Your task to perform on an android device: Empty the shopping cart on target. Add usb-c to the cart on target Image 0: 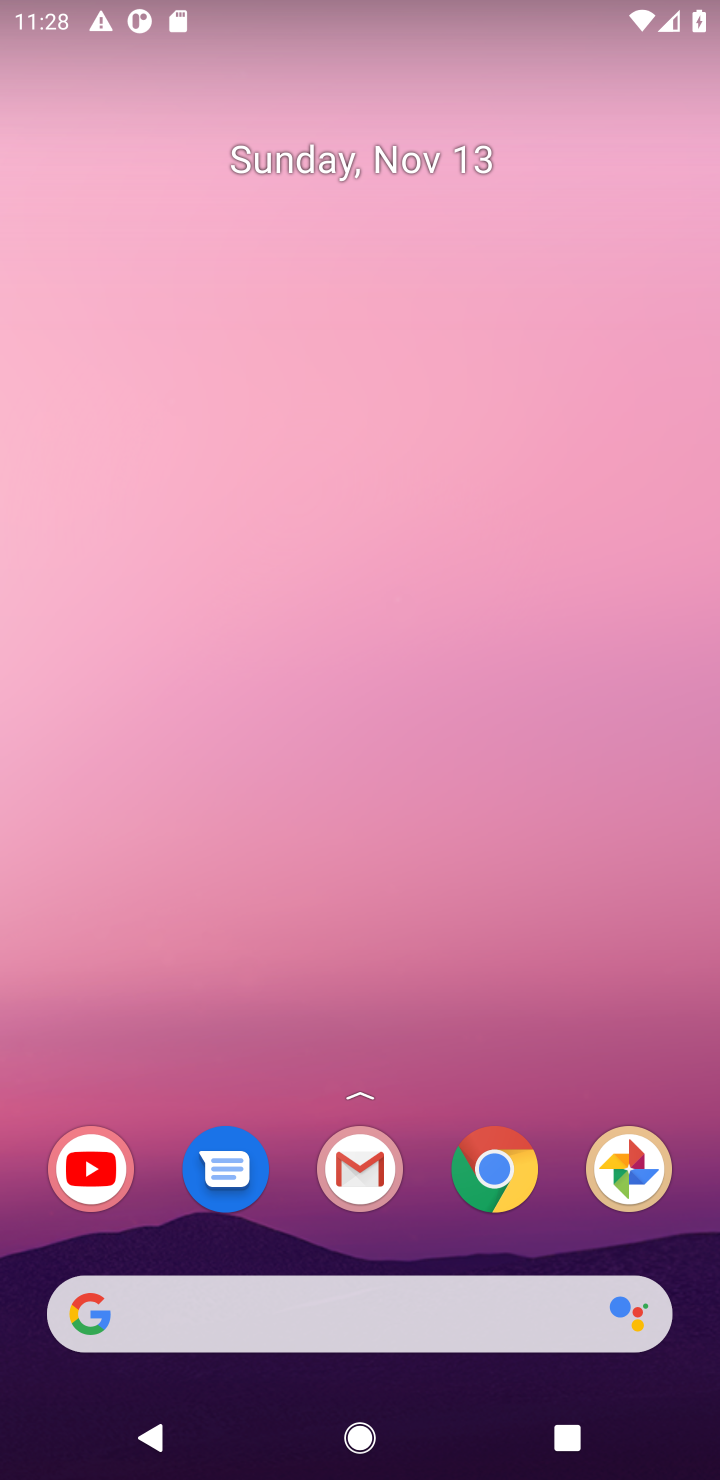
Step 0: drag from (410, 1251) to (361, 142)
Your task to perform on an android device: Empty the shopping cart on target. Add usb-c to the cart on target Image 1: 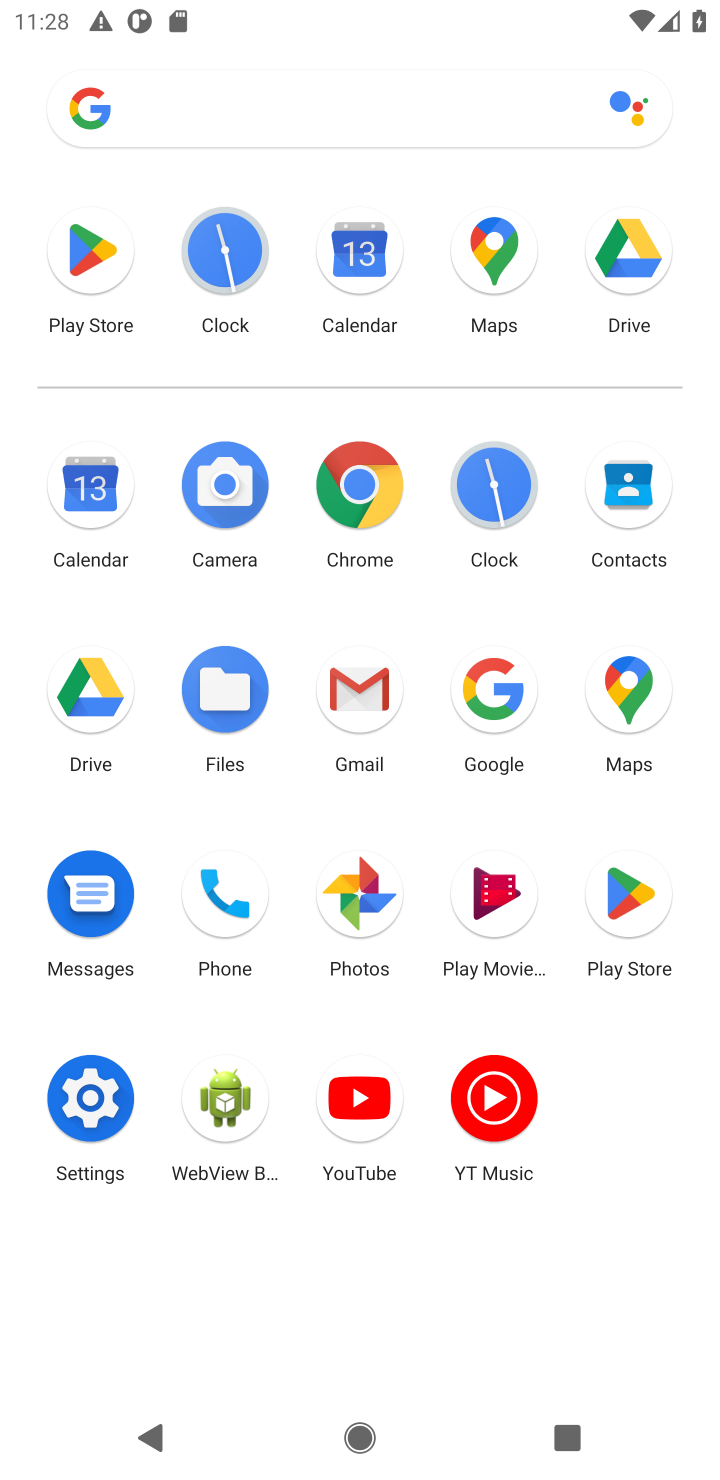
Step 1: click (338, 479)
Your task to perform on an android device: Empty the shopping cart on target. Add usb-c to the cart on target Image 2: 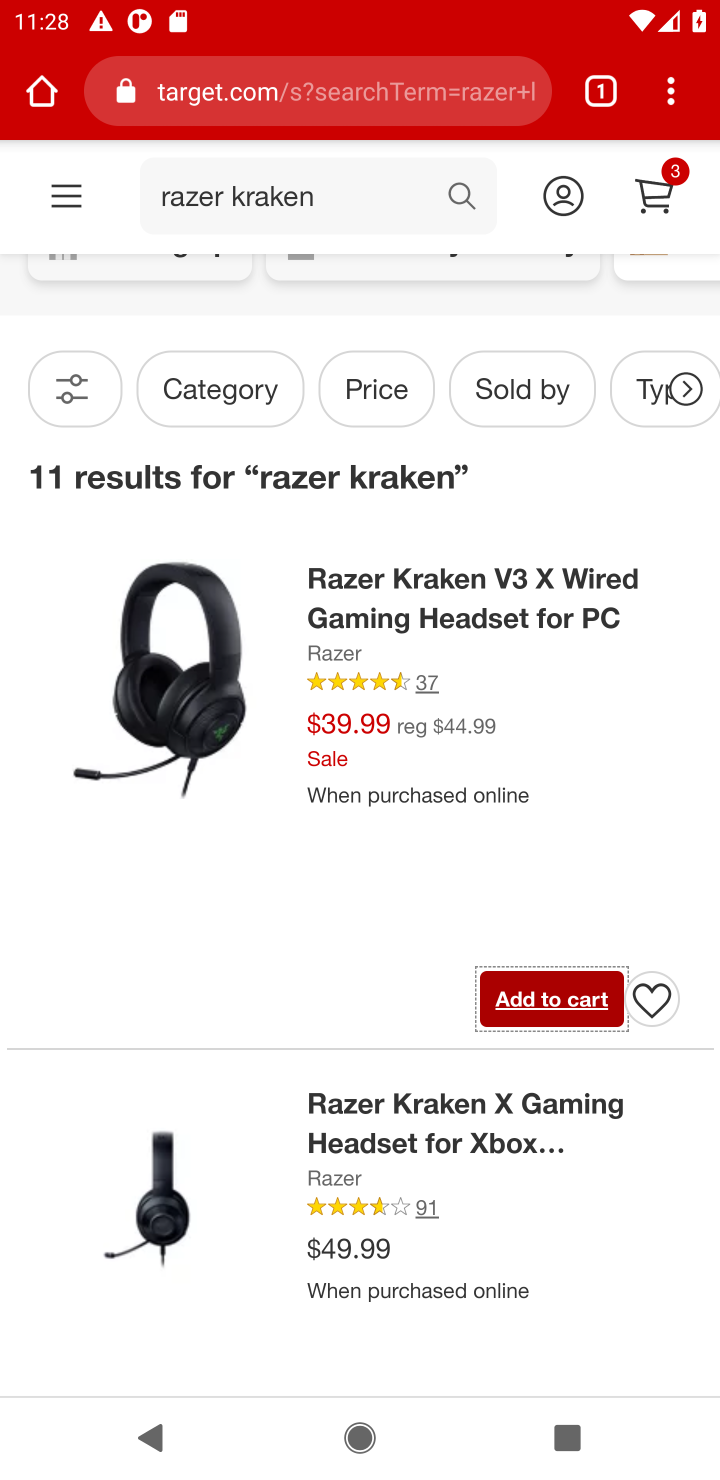
Step 2: click (346, 107)
Your task to perform on an android device: Empty the shopping cart on target. Add usb-c to the cart on target Image 3: 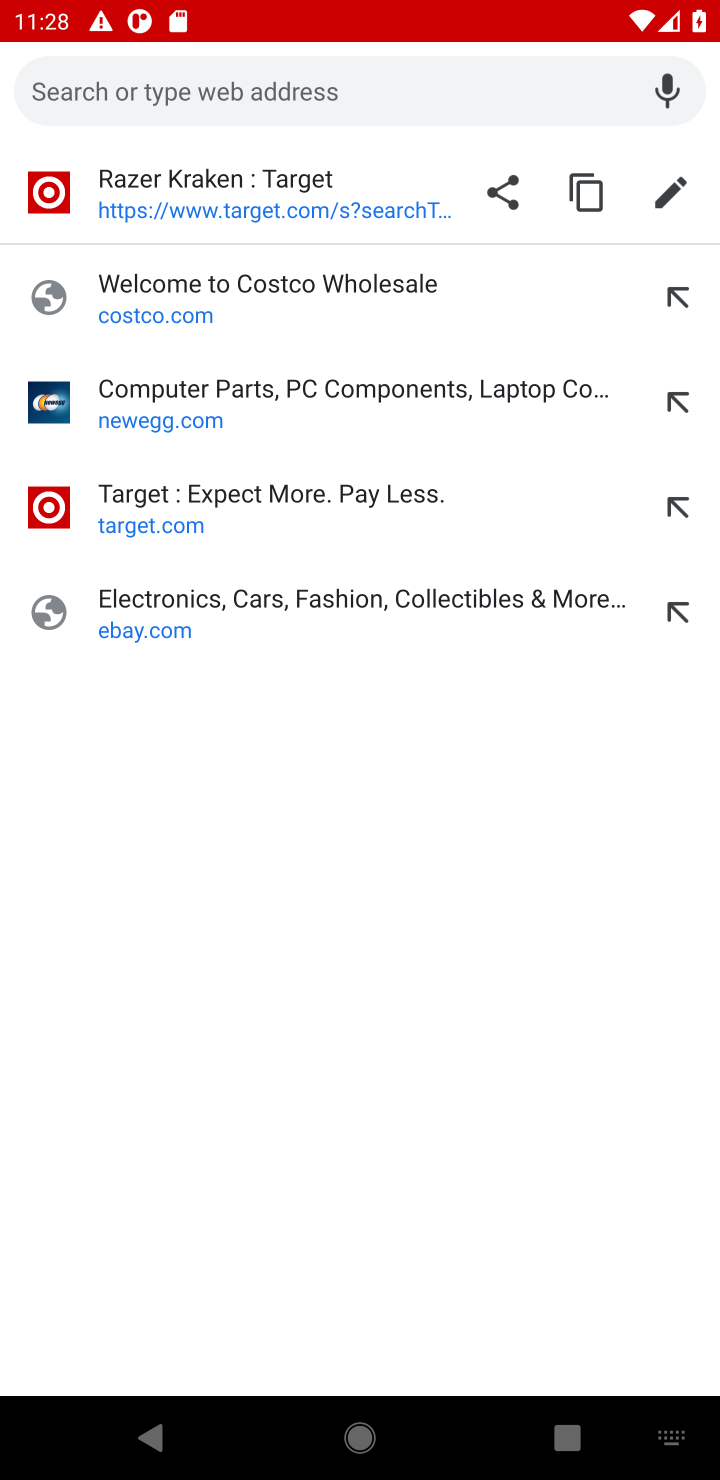
Step 3: type "target.com"
Your task to perform on an android device: Empty the shopping cart on target. Add usb-c to the cart on target Image 4: 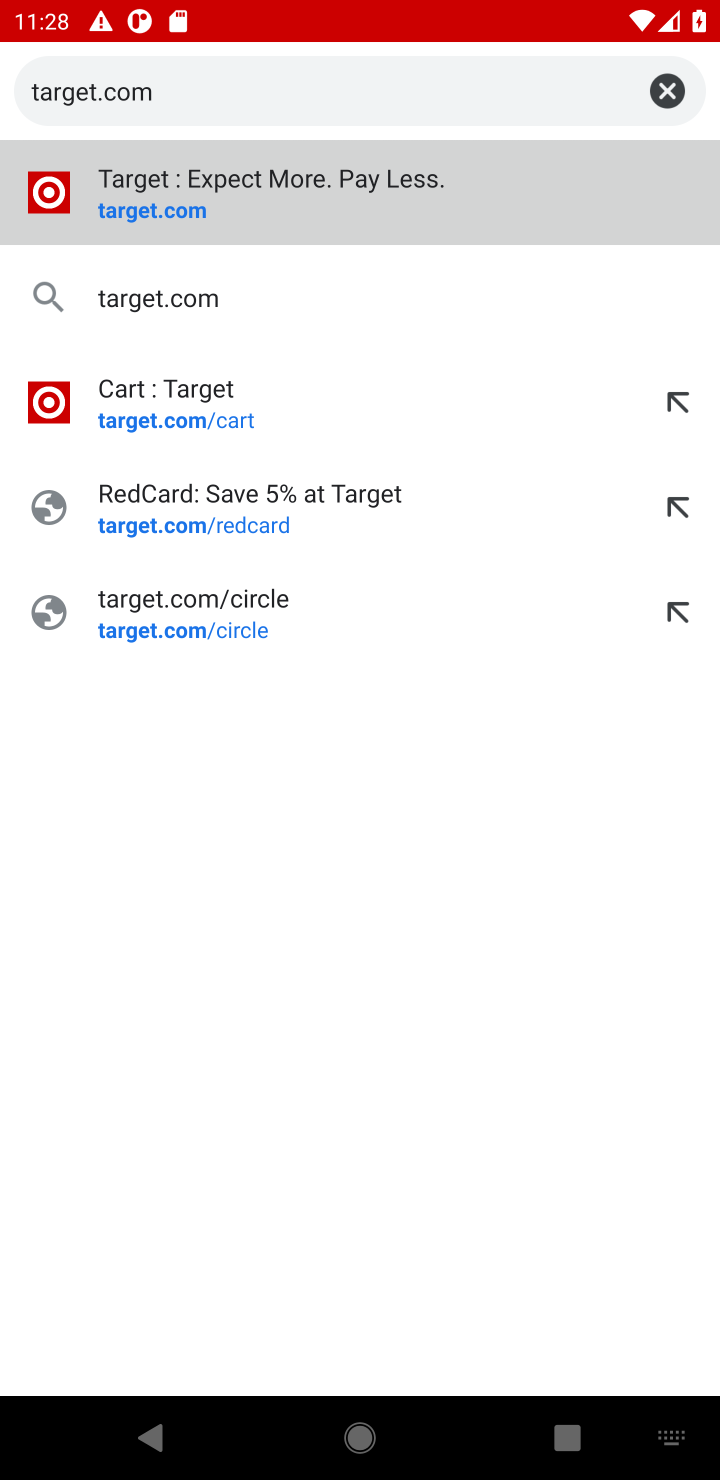
Step 4: press enter
Your task to perform on an android device: Empty the shopping cart on target. Add usb-c to the cart on target Image 5: 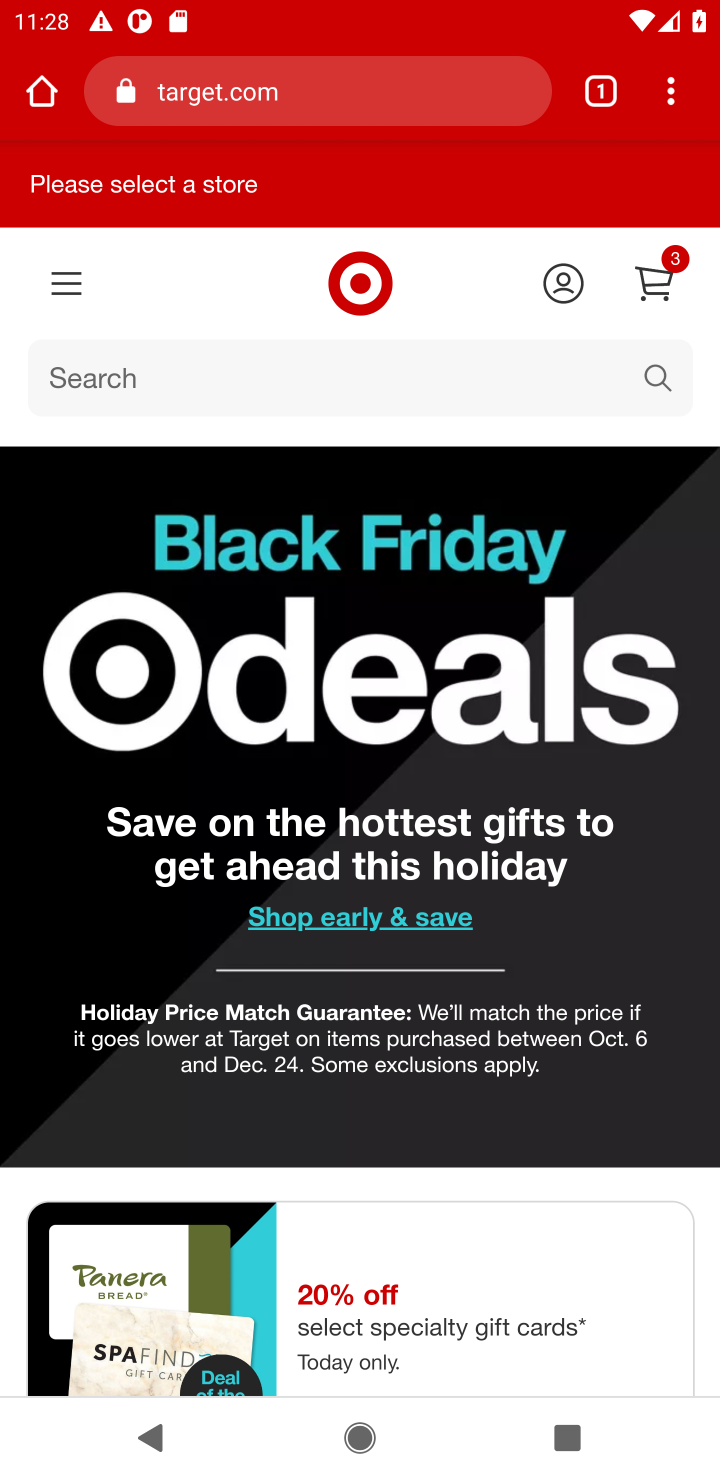
Step 5: click (668, 281)
Your task to perform on an android device: Empty the shopping cart on target. Add usb-c to the cart on target Image 6: 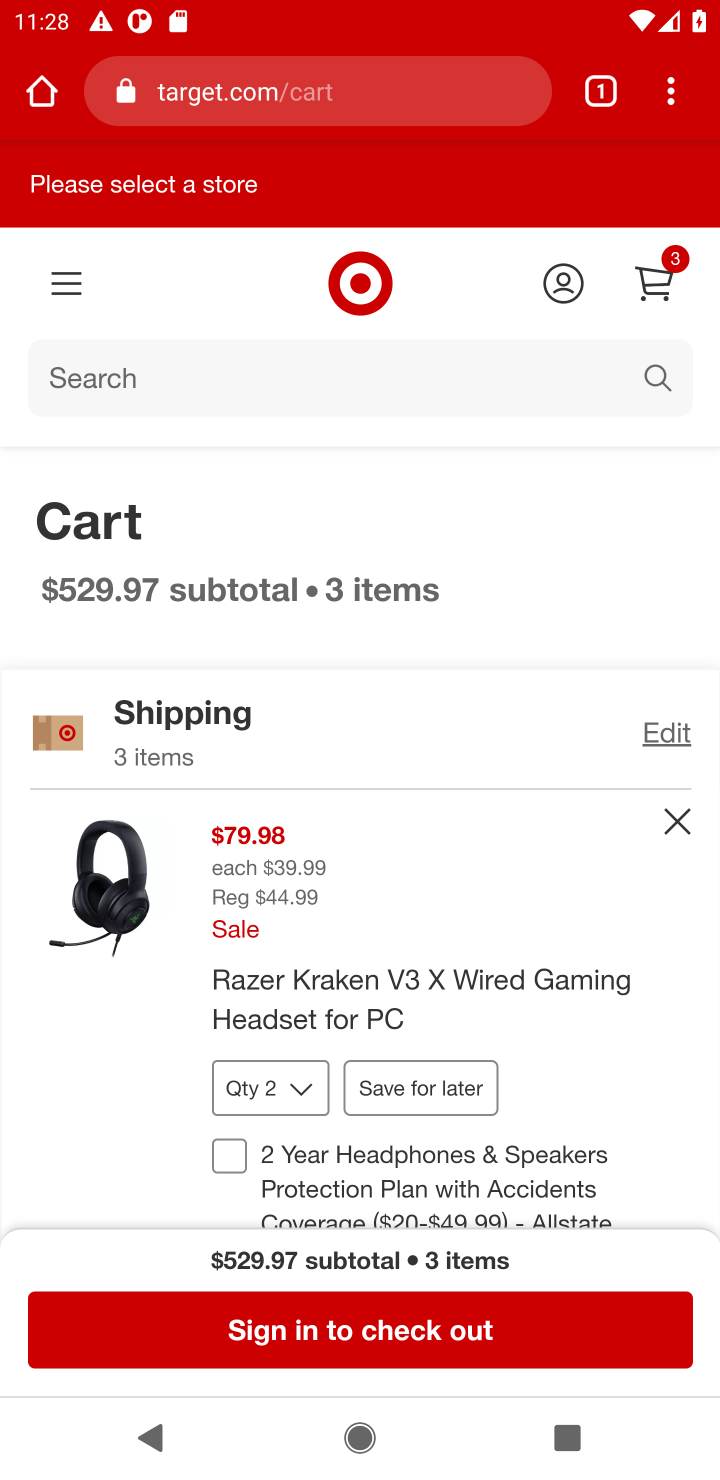
Step 6: click (682, 825)
Your task to perform on an android device: Empty the shopping cart on target. Add usb-c to the cart on target Image 7: 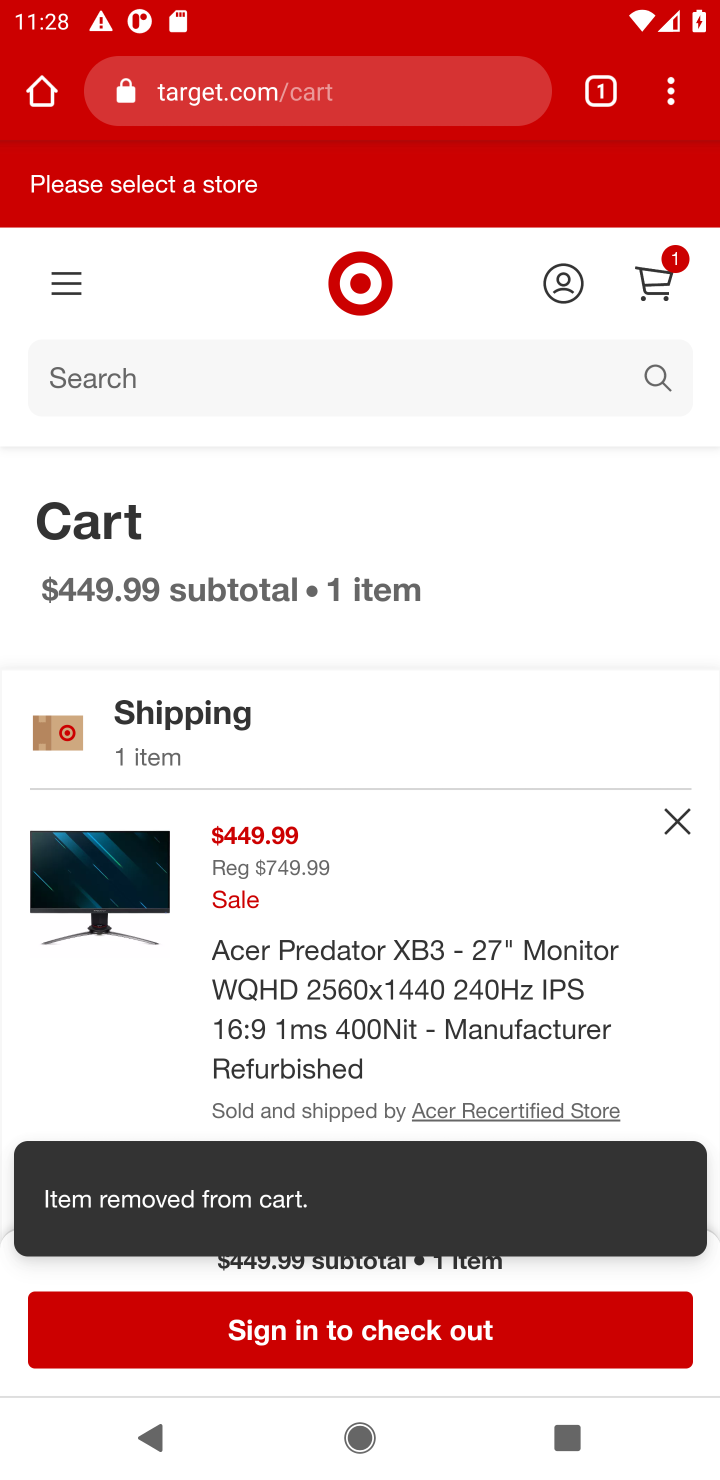
Step 7: click (682, 825)
Your task to perform on an android device: Empty the shopping cart on target. Add usb-c to the cart on target Image 8: 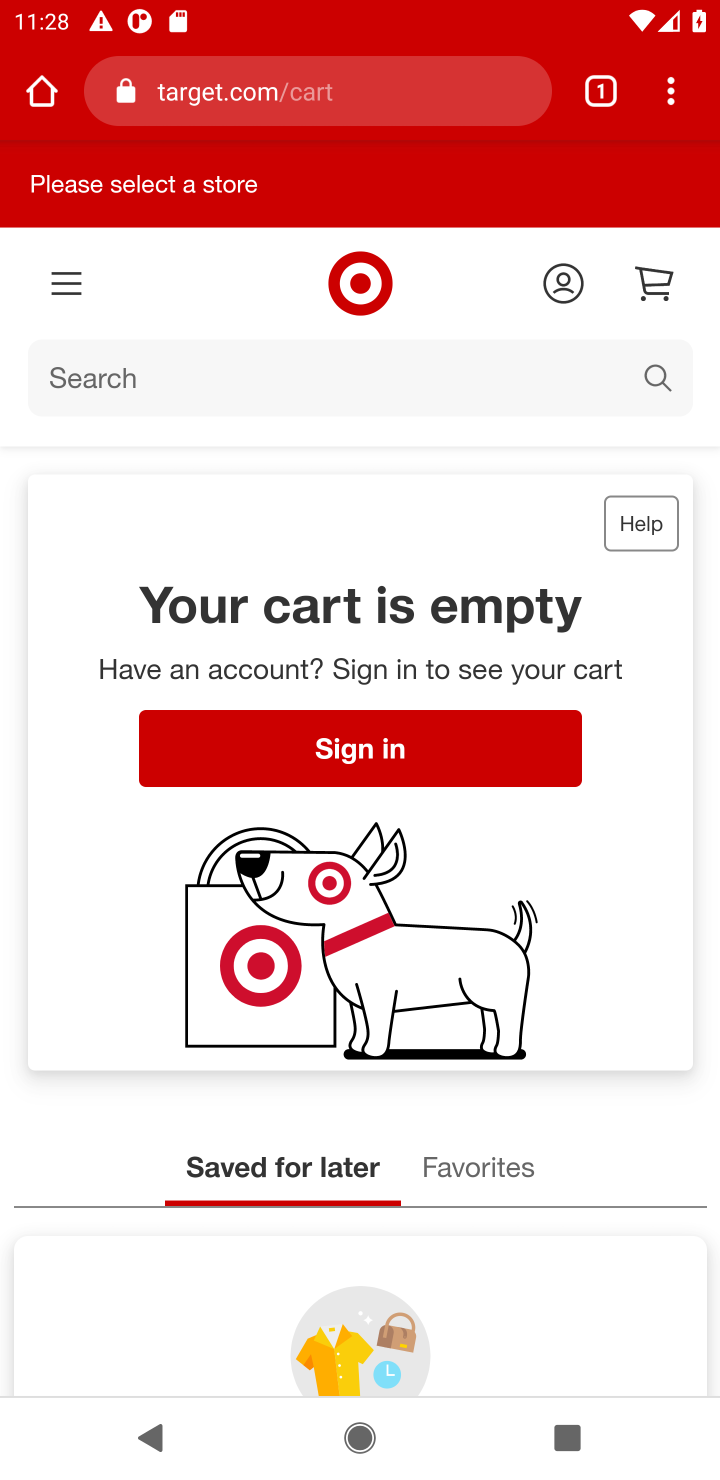
Step 8: click (336, 380)
Your task to perform on an android device: Empty the shopping cart on target. Add usb-c to the cart on target Image 9: 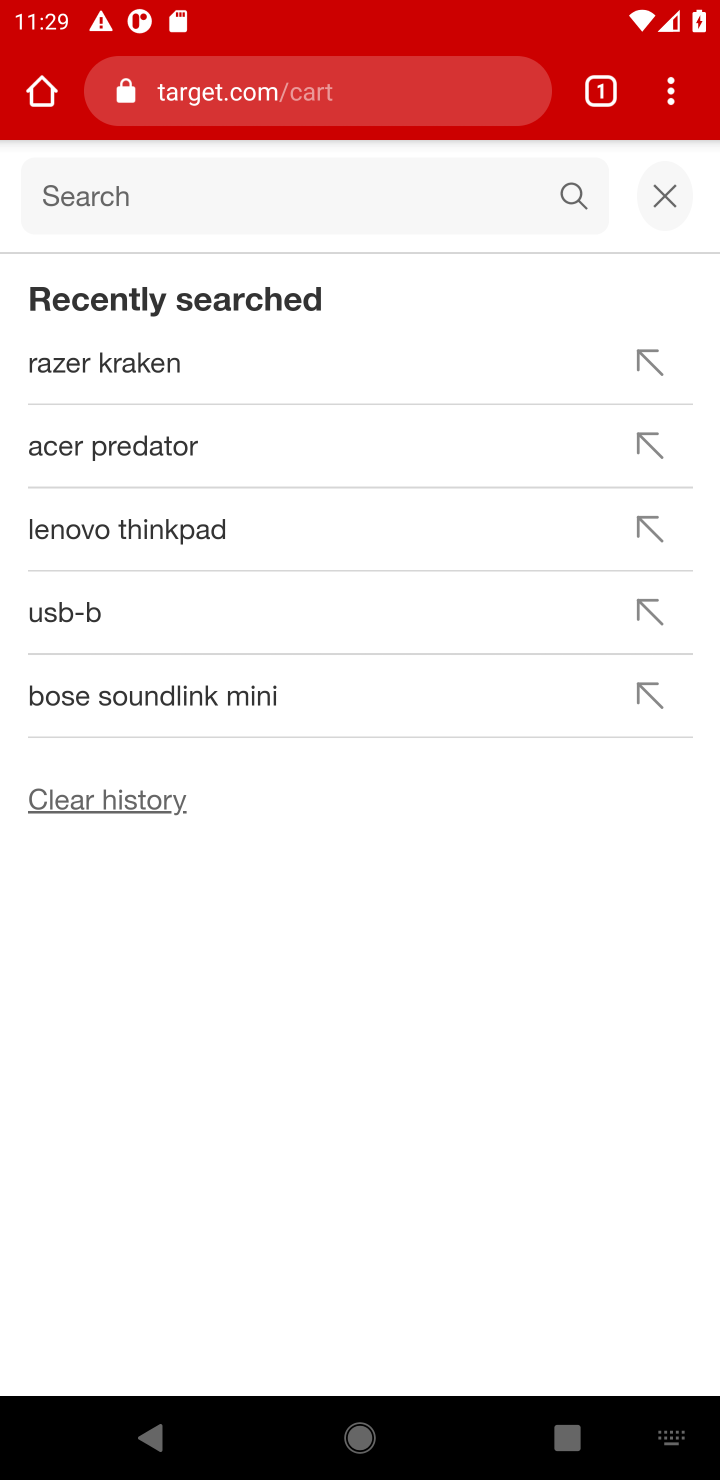
Step 9: type "usb-c"
Your task to perform on an android device: Empty the shopping cart on target. Add usb-c to the cart on target Image 10: 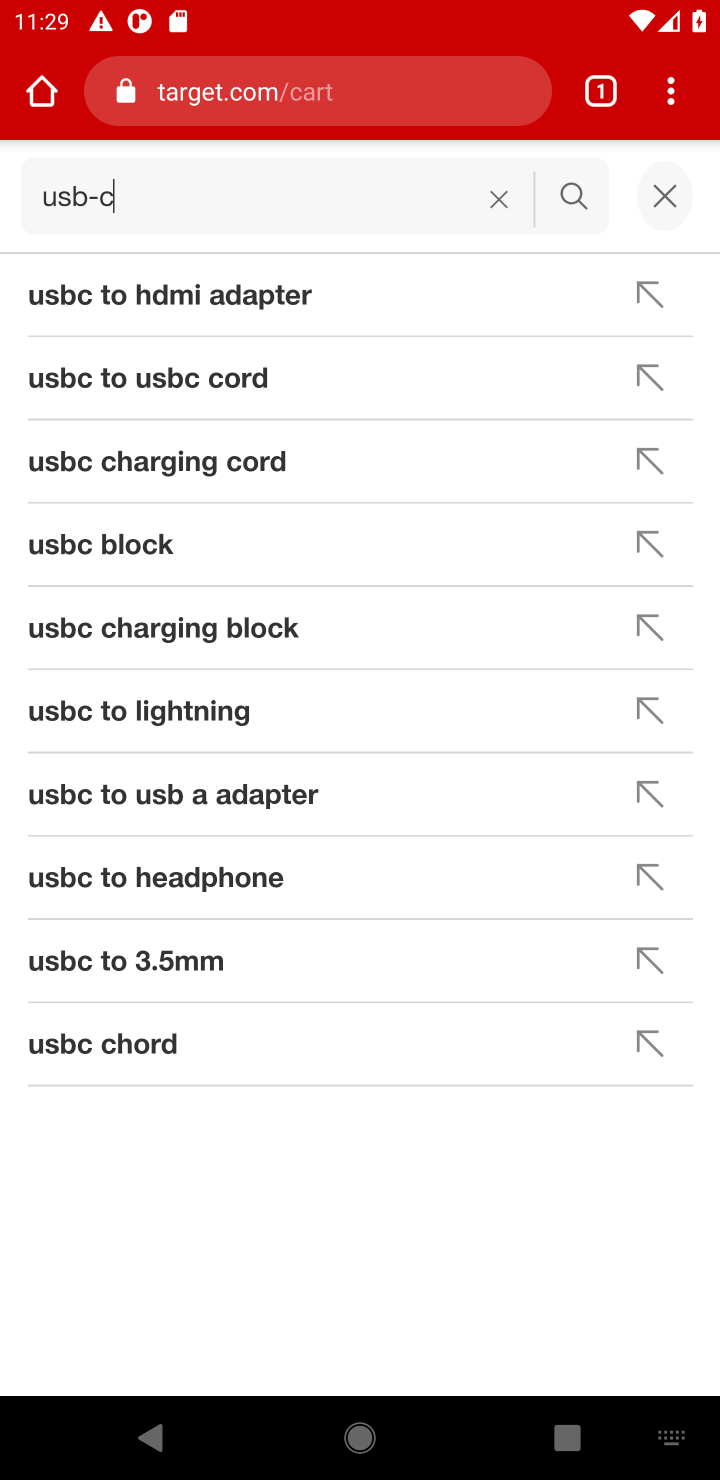
Step 10: press enter
Your task to perform on an android device: Empty the shopping cart on target. Add usb-c to the cart on target Image 11: 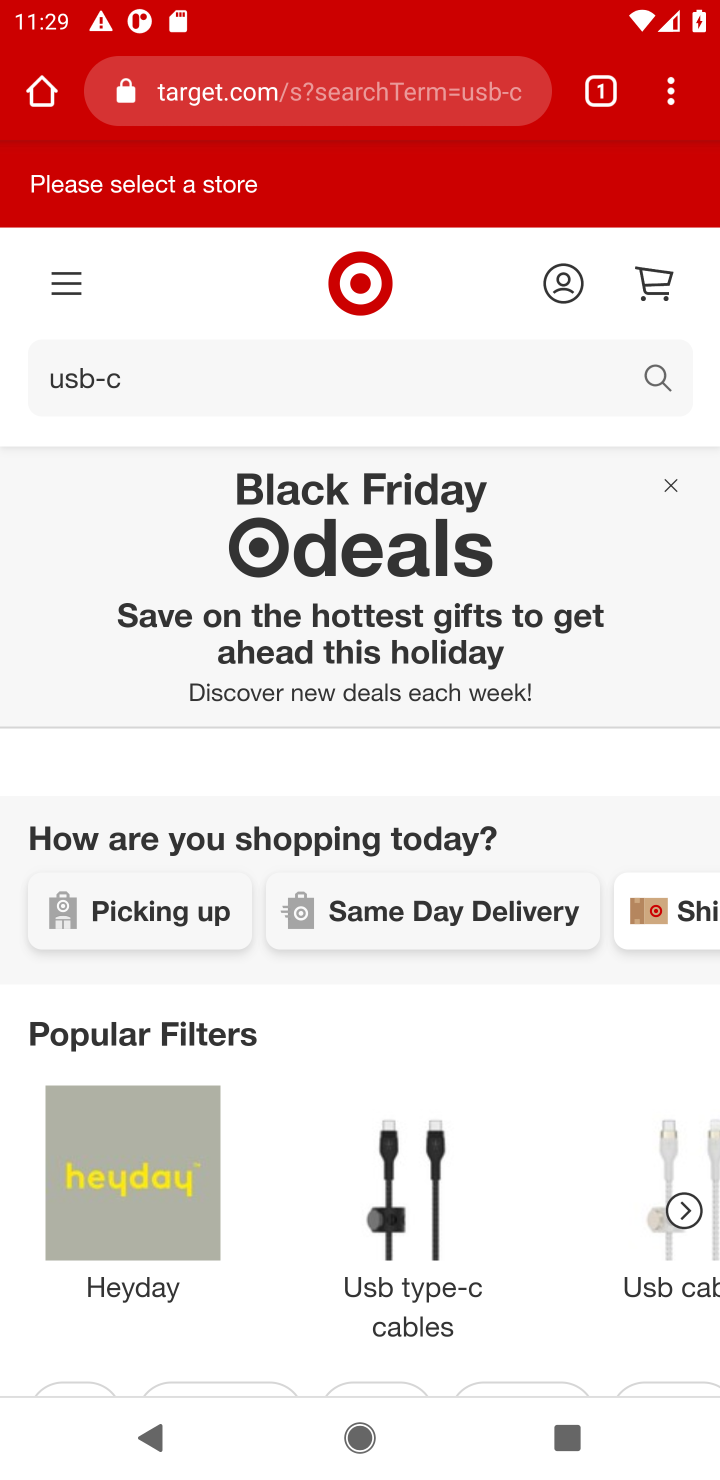
Step 11: drag from (496, 1334) to (343, 552)
Your task to perform on an android device: Empty the shopping cart on target. Add usb-c to the cart on target Image 12: 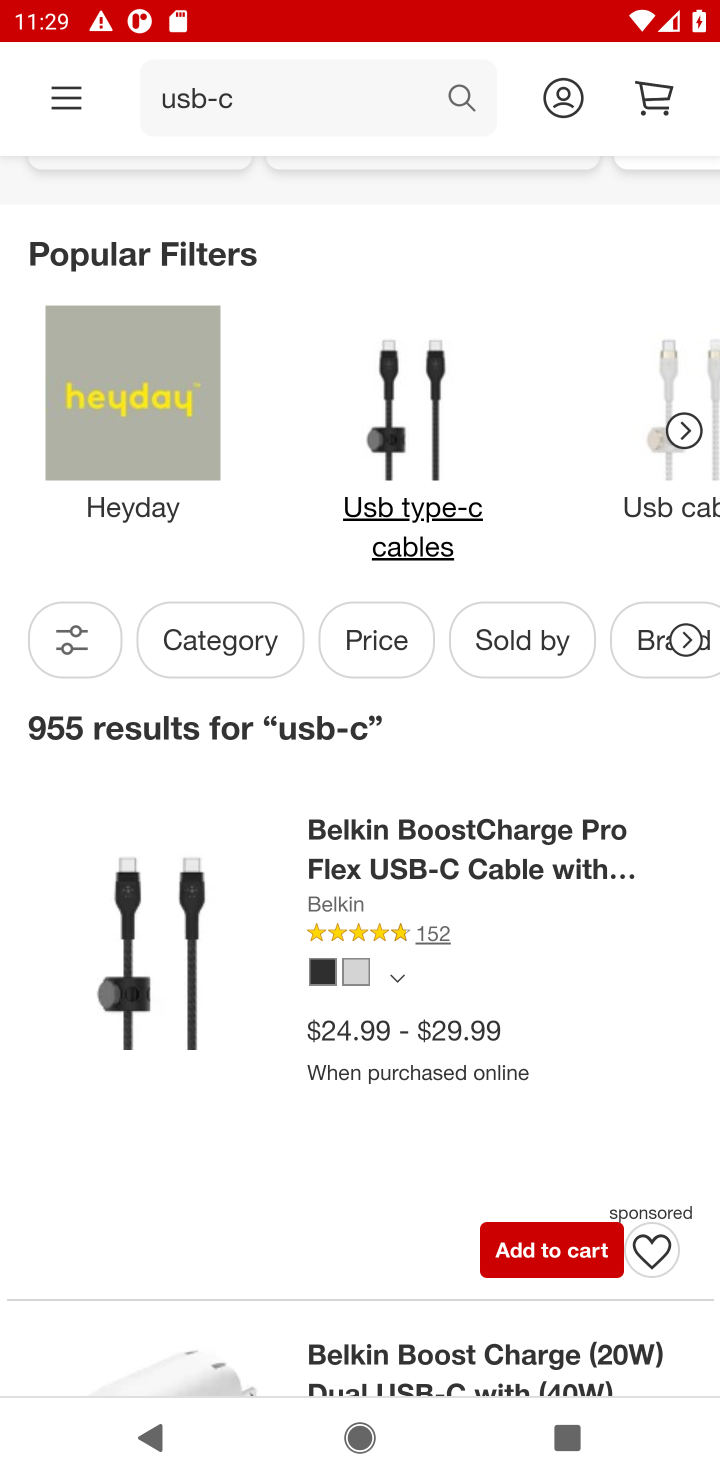
Step 12: click (493, 1253)
Your task to perform on an android device: Empty the shopping cart on target. Add usb-c to the cart on target Image 13: 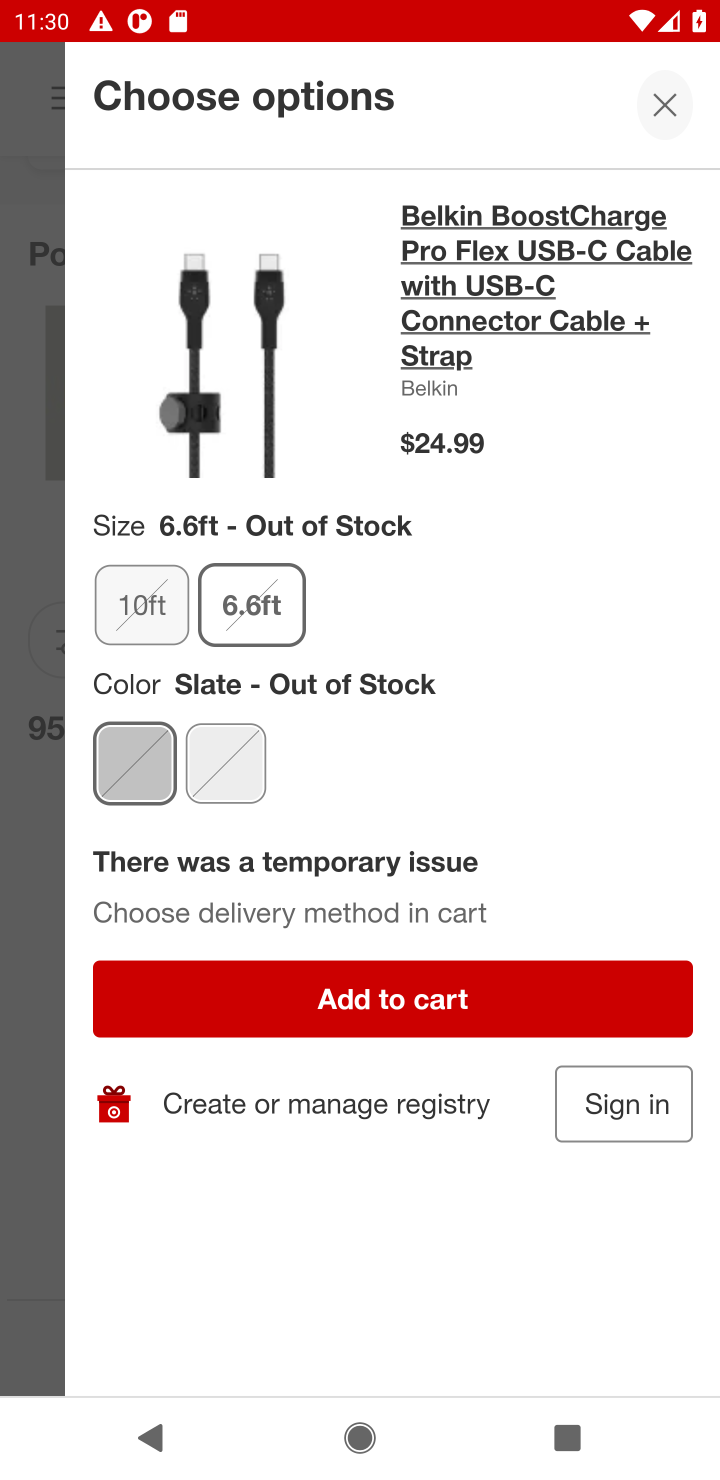
Step 13: click (472, 1012)
Your task to perform on an android device: Empty the shopping cart on target. Add usb-c to the cart on target Image 14: 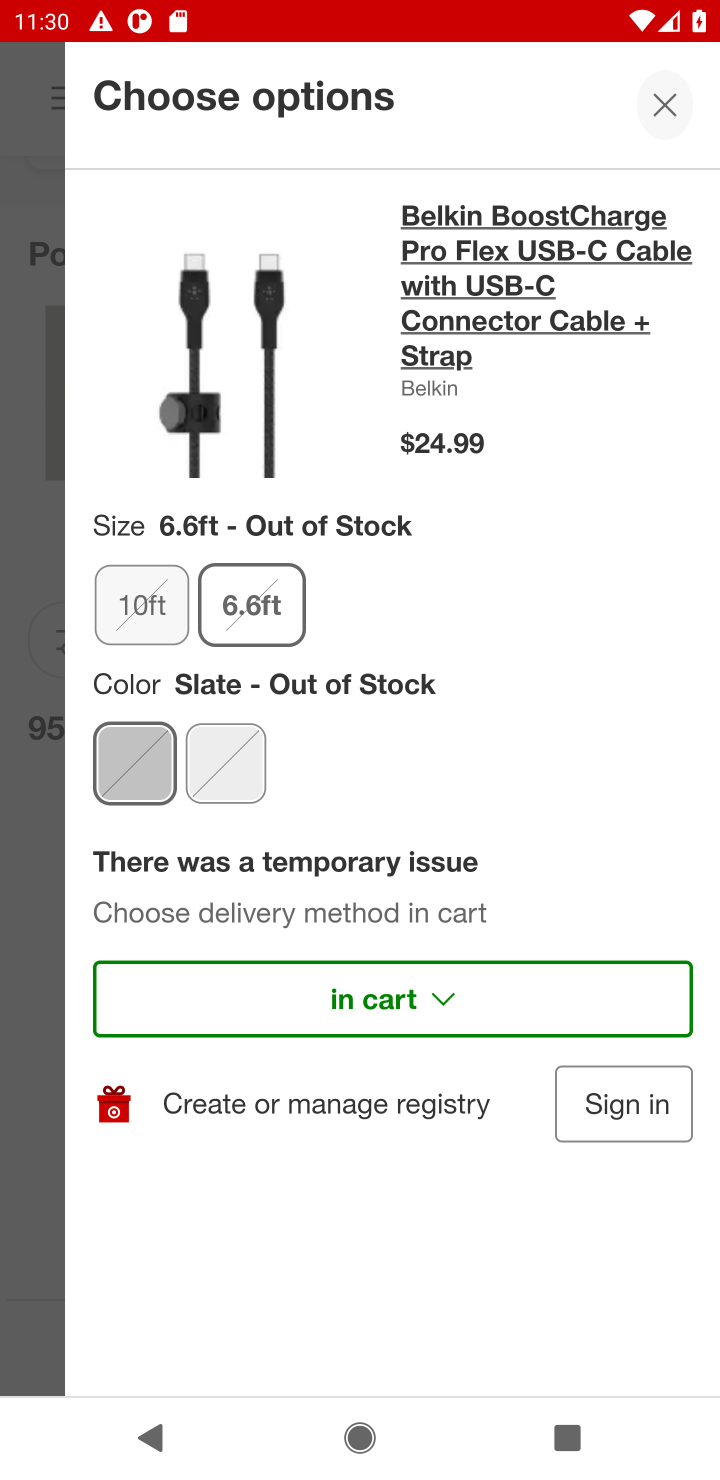
Step 14: task complete